Your task to perform on an android device: turn on the 12-hour format for clock Image 0: 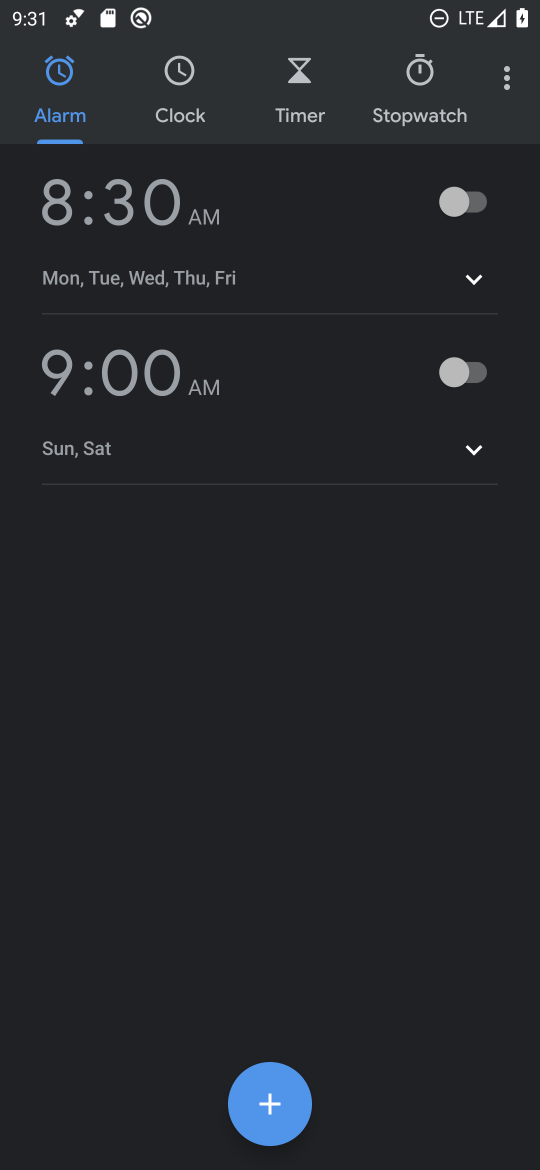
Step 0: click (518, 92)
Your task to perform on an android device: turn on the 12-hour format for clock Image 1: 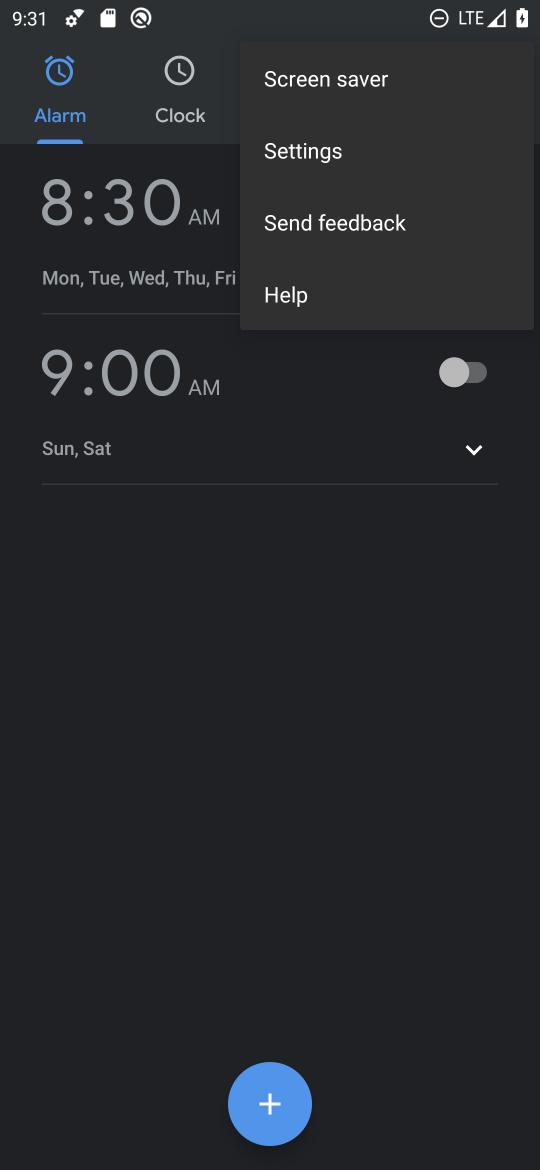
Step 1: click (384, 167)
Your task to perform on an android device: turn on the 12-hour format for clock Image 2: 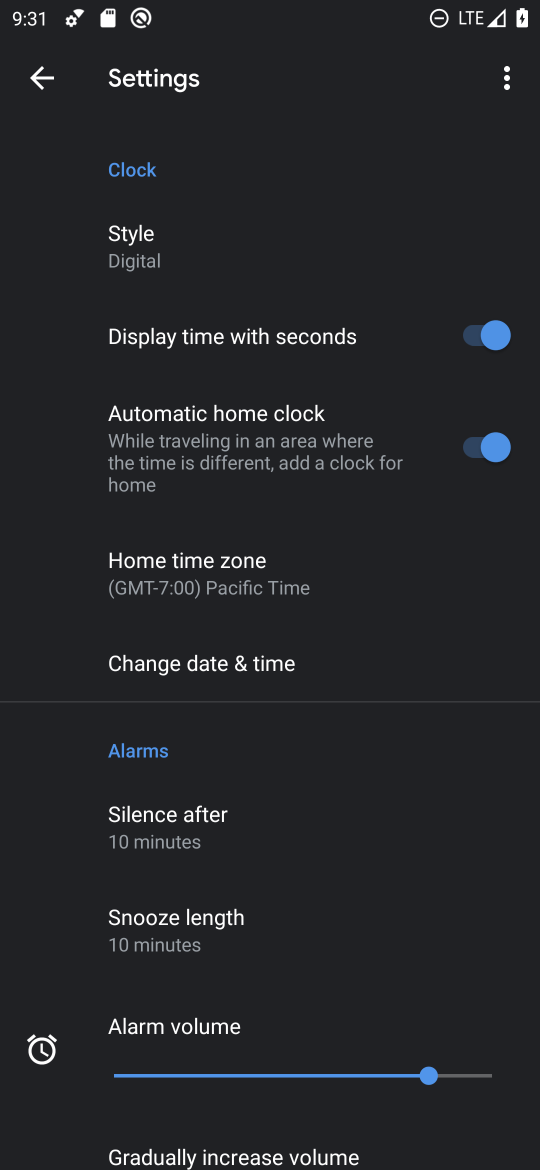
Step 2: click (320, 672)
Your task to perform on an android device: turn on the 12-hour format for clock Image 3: 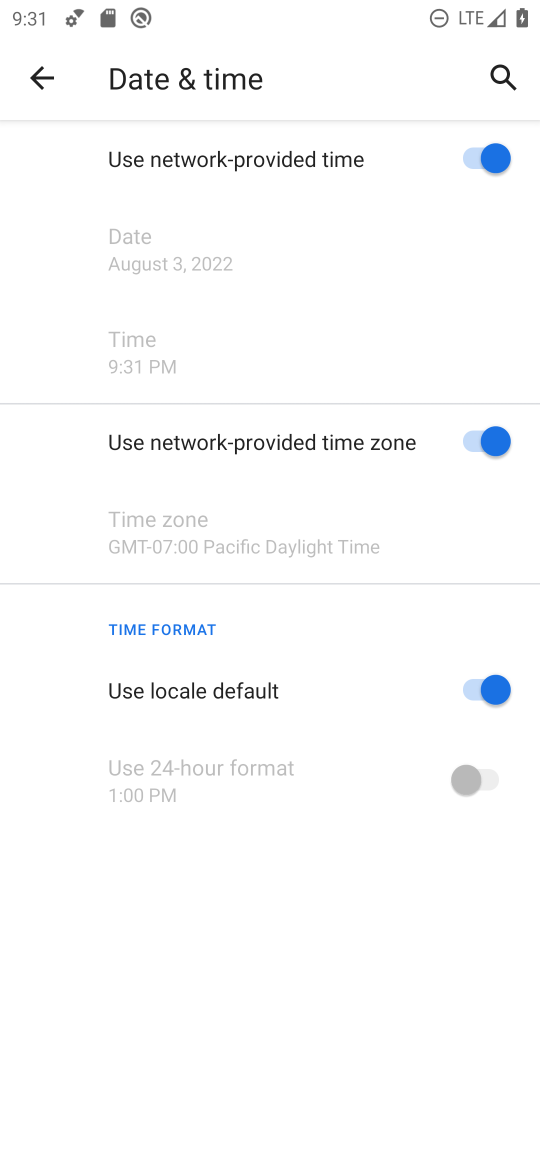
Step 3: task complete